Your task to perform on an android device: Open Chrome and go to the settings page Image 0: 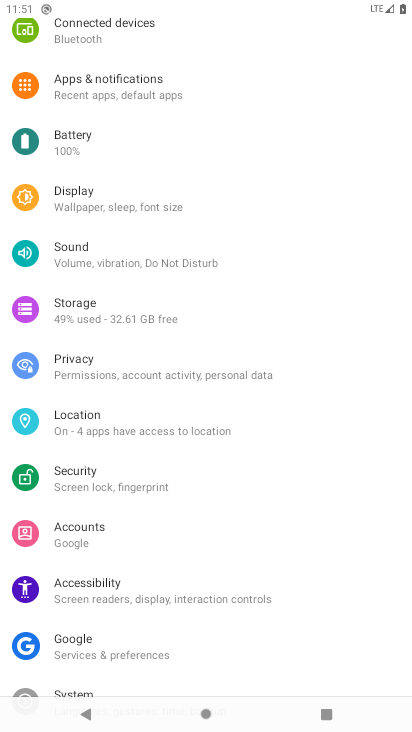
Step 0: press home button
Your task to perform on an android device: Open Chrome and go to the settings page Image 1: 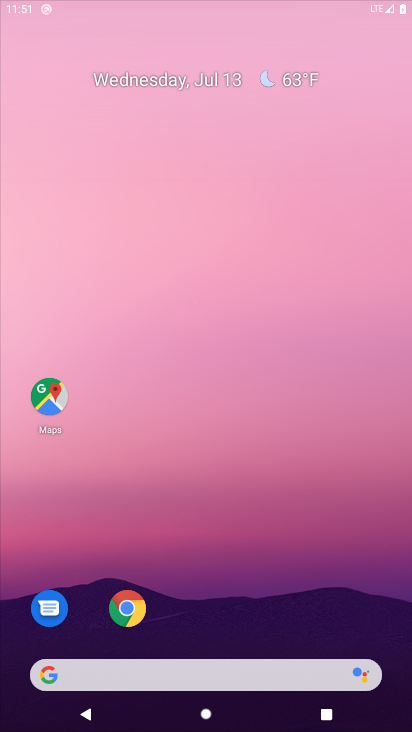
Step 1: drag from (254, 669) to (209, 175)
Your task to perform on an android device: Open Chrome and go to the settings page Image 2: 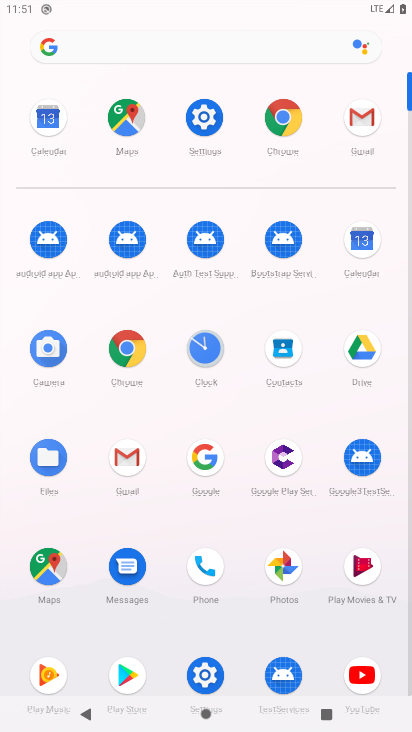
Step 2: click (261, 125)
Your task to perform on an android device: Open Chrome and go to the settings page Image 3: 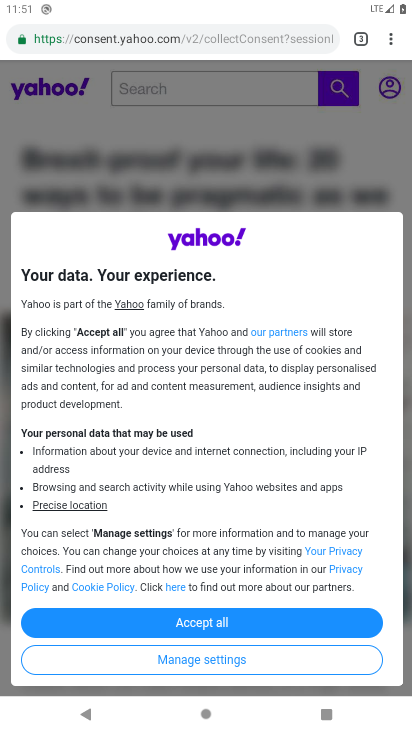
Step 3: task complete